Your task to perform on an android device: turn off location Image 0: 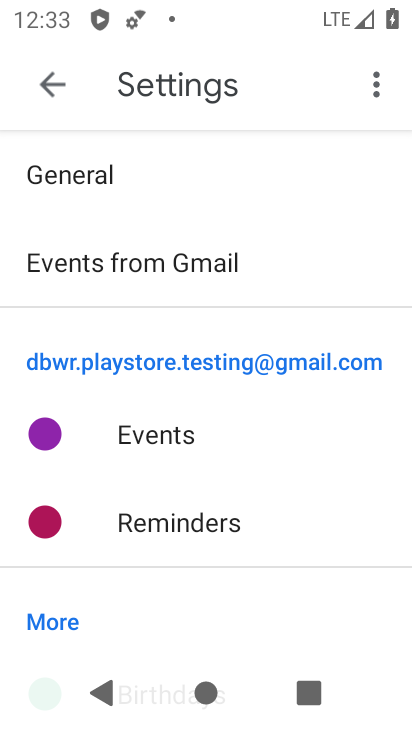
Step 0: press home button
Your task to perform on an android device: turn off location Image 1: 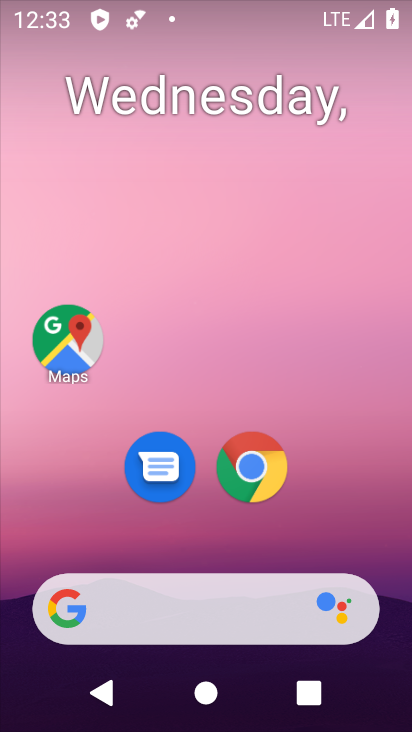
Step 1: drag from (375, 505) to (371, 109)
Your task to perform on an android device: turn off location Image 2: 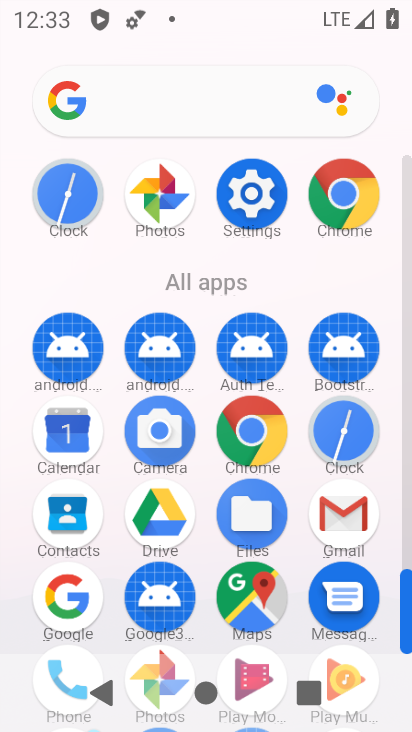
Step 2: click (254, 218)
Your task to perform on an android device: turn off location Image 3: 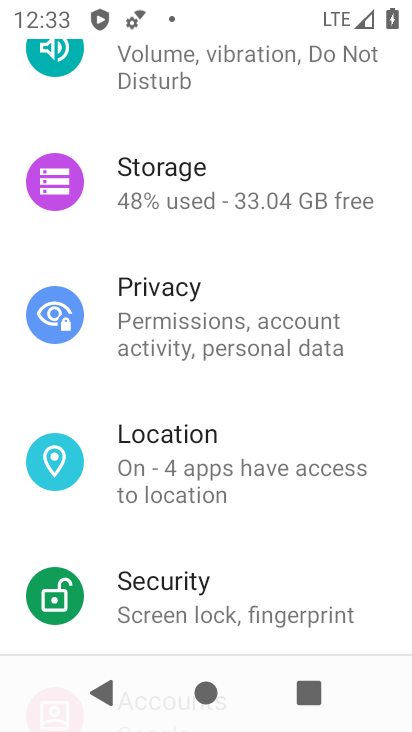
Step 3: click (313, 470)
Your task to perform on an android device: turn off location Image 4: 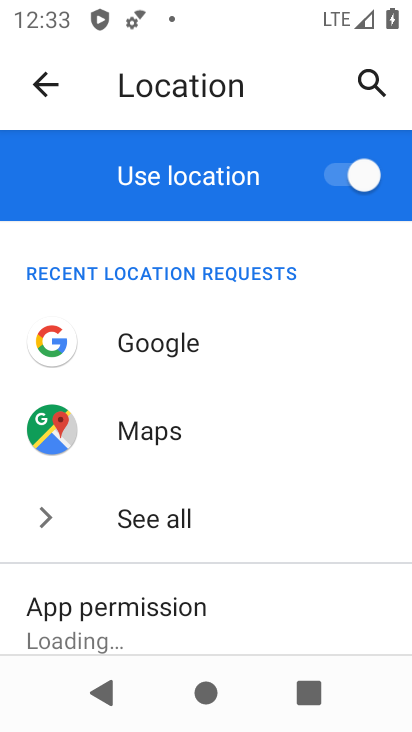
Step 4: click (363, 183)
Your task to perform on an android device: turn off location Image 5: 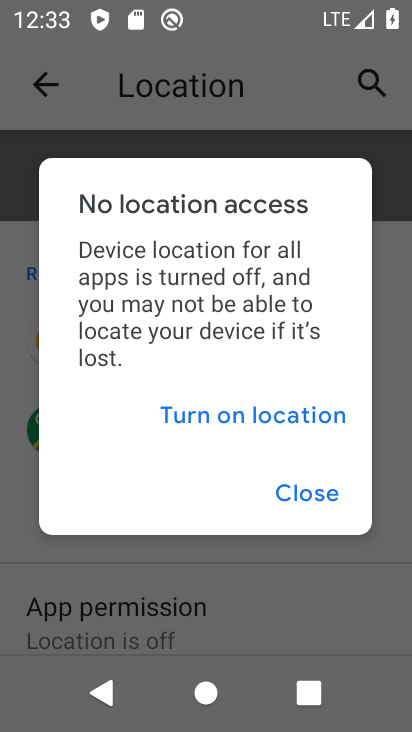
Step 5: task complete